Your task to perform on an android device: Do I have any events tomorrow? Image 0: 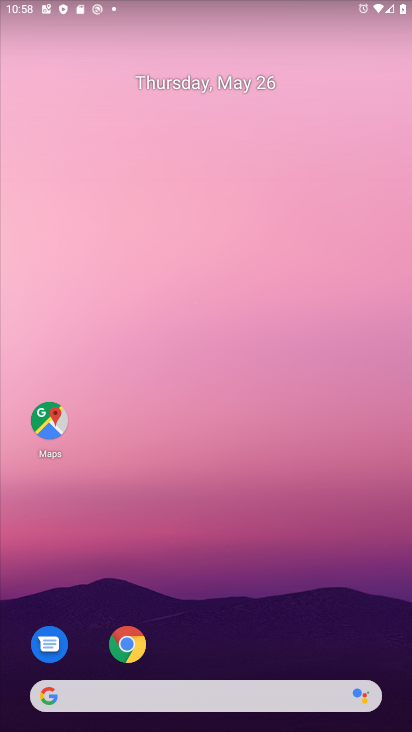
Step 0: drag from (214, 648) to (218, 214)
Your task to perform on an android device: Do I have any events tomorrow? Image 1: 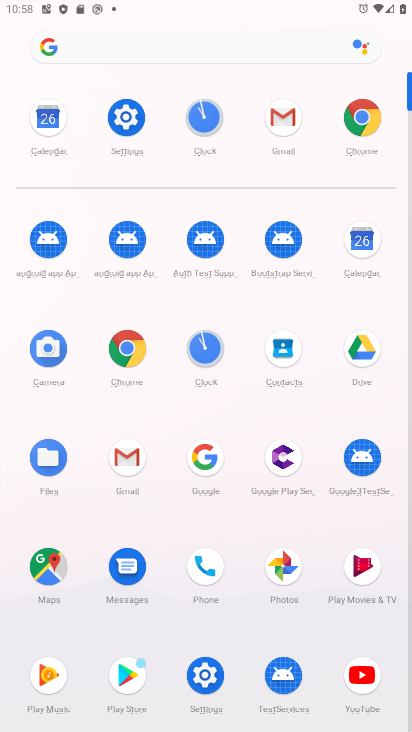
Step 1: click (353, 239)
Your task to perform on an android device: Do I have any events tomorrow? Image 2: 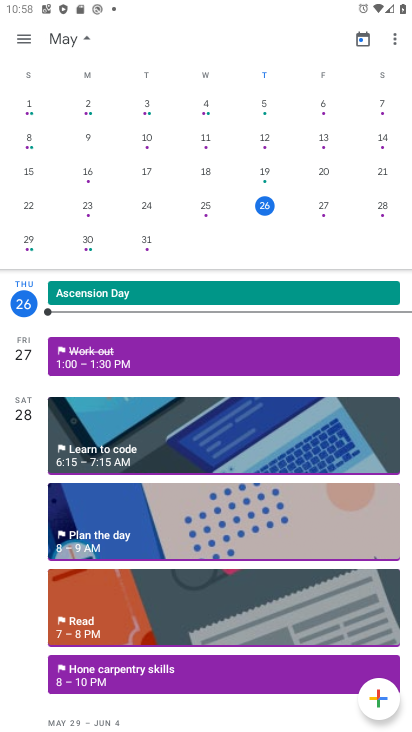
Step 2: click (310, 204)
Your task to perform on an android device: Do I have any events tomorrow? Image 3: 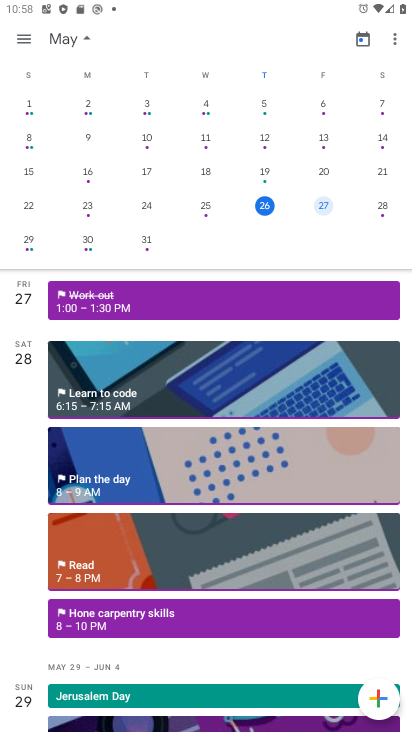
Step 3: task complete